Your task to perform on an android device: Go to Android settings Image 0: 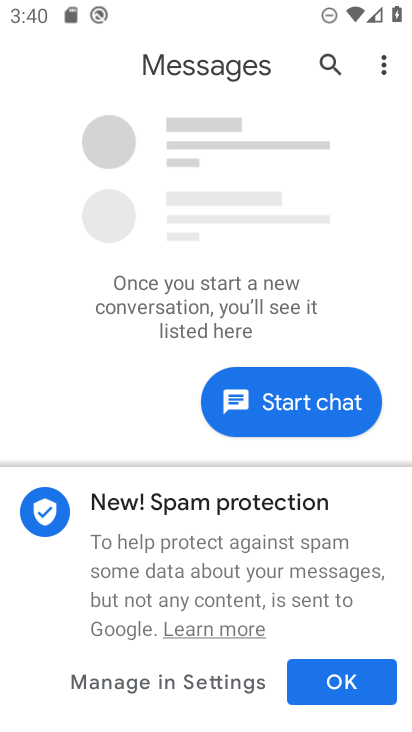
Step 0: press home button
Your task to perform on an android device: Go to Android settings Image 1: 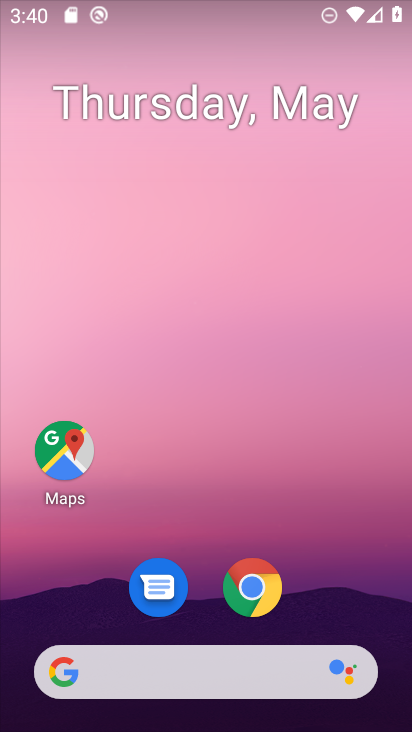
Step 1: drag from (360, 573) to (357, 211)
Your task to perform on an android device: Go to Android settings Image 2: 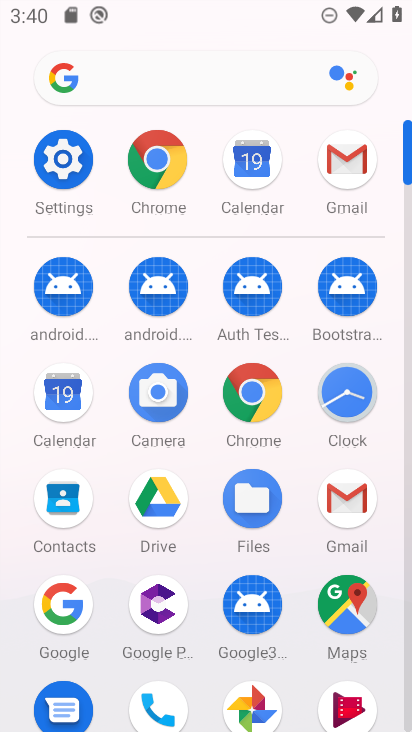
Step 2: click (73, 174)
Your task to perform on an android device: Go to Android settings Image 3: 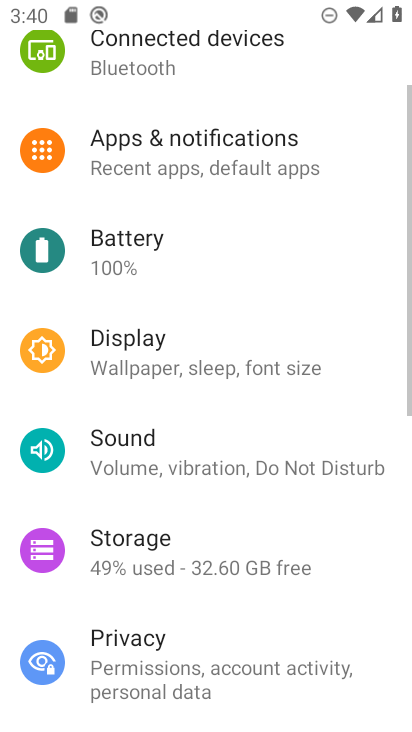
Step 3: drag from (372, 298) to (370, 354)
Your task to perform on an android device: Go to Android settings Image 4: 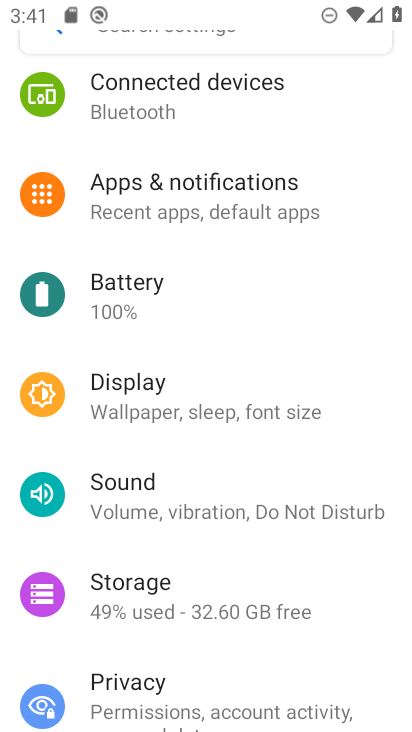
Step 4: drag from (362, 202) to (366, 333)
Your task to perform on an android device: Go to Android settings Image 5: 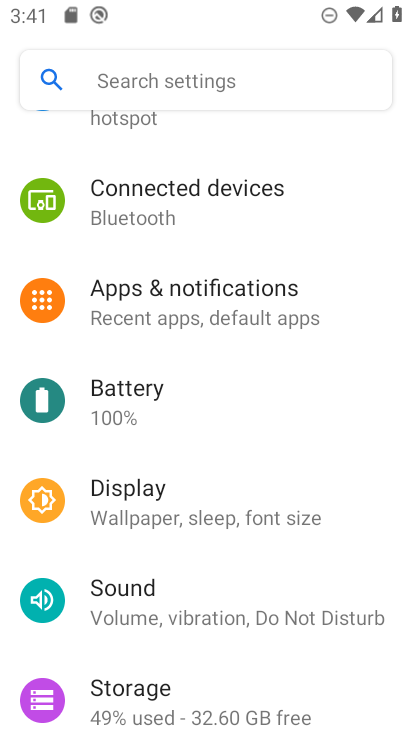
Step 5: drag from (347, 175) to (343, 318)
Your task to perform on an android device: Go to Android settings Image 6: 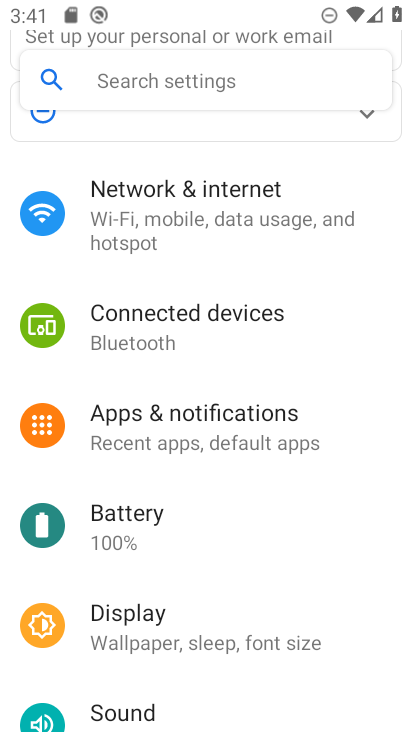
Step 6: drag from (351, 178) to (346, 339)
Your task to perform on an android device: Go to Android settings Image 7: 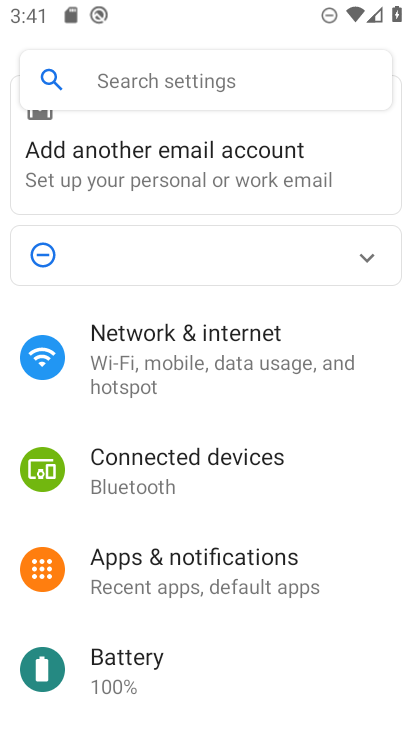
Step 7: drag from (358, 153) to (345, 377)
Your task to perform on an android device: Go to Android settings Image 8: 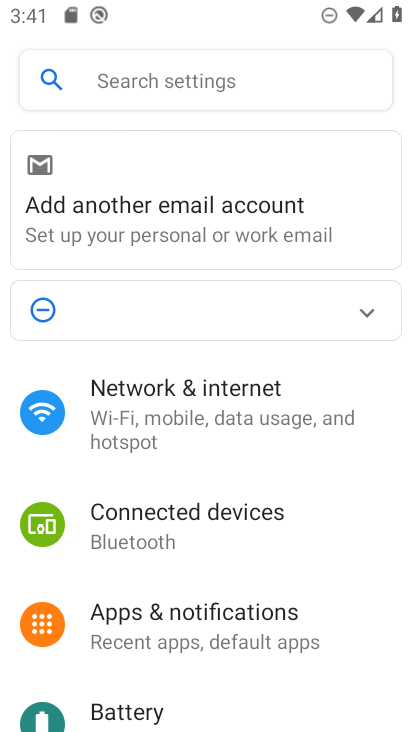
Step 8: drag from (338, 433) to (345, 297)
Your task to perform on an android device: Go to Android settings Image 9: 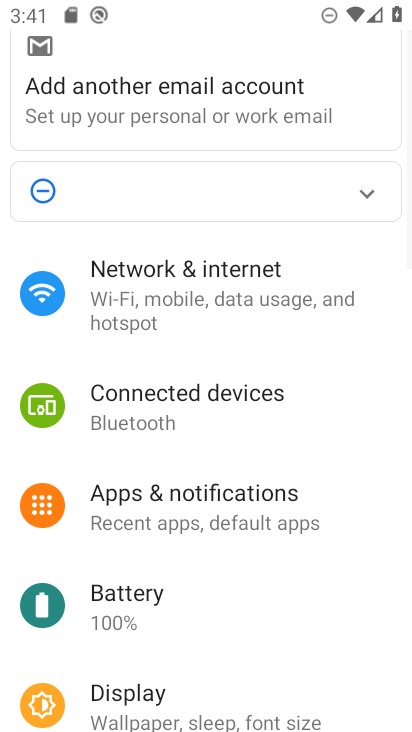
Step 9: drag from (340, 449) to (339, 311)
Your task to perform on an android device: Go to Android settings Image 10: 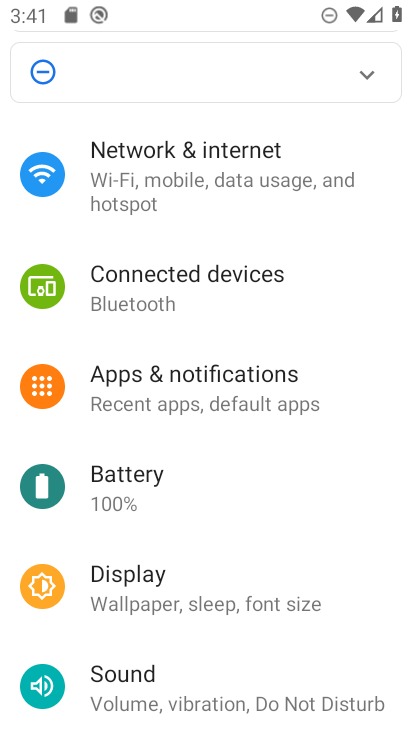
Step 10: drag from (339, 488) to (334, 381)
Your task to perform on an android device: Go to Android settings Image 11: 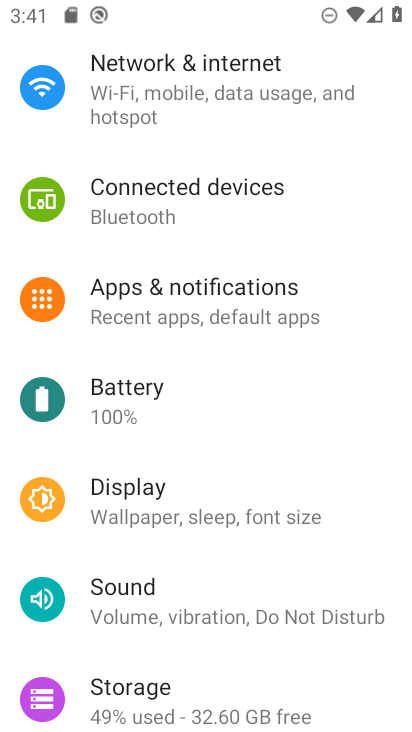
Step 11: drag from (319, 538) to (316, 413)
Your task to perform on an android device: Go to Android settings Image 12: 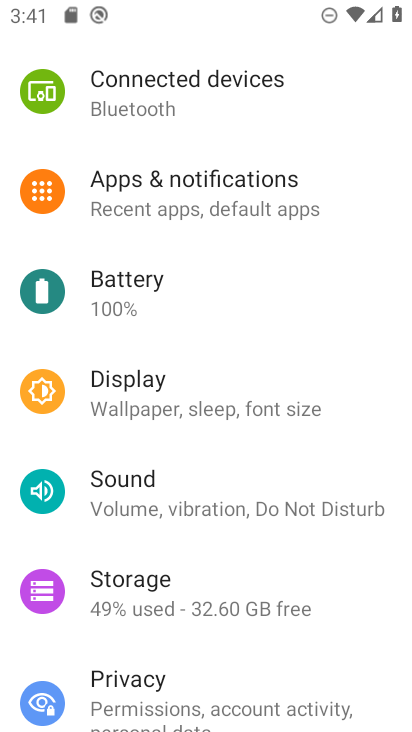
Step 12: drag from (320, 534) to (319, 446)
Your task to perform on an android device: Go to Android settings Image 13: 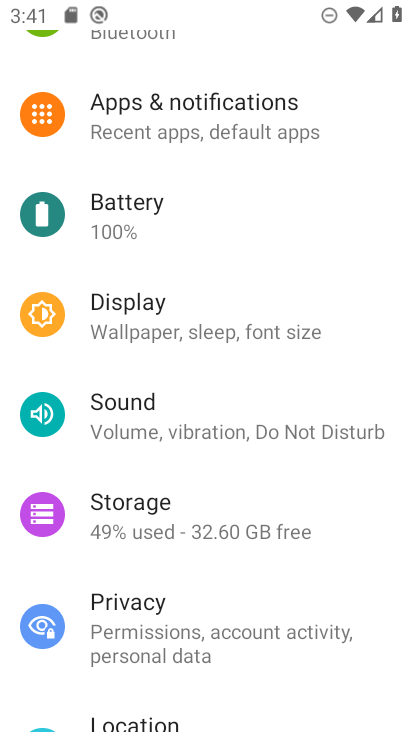
Step 13: drag from (312, 558) to (311, 452)
Your task to perform on an android device: Go to Android settings Image 14: 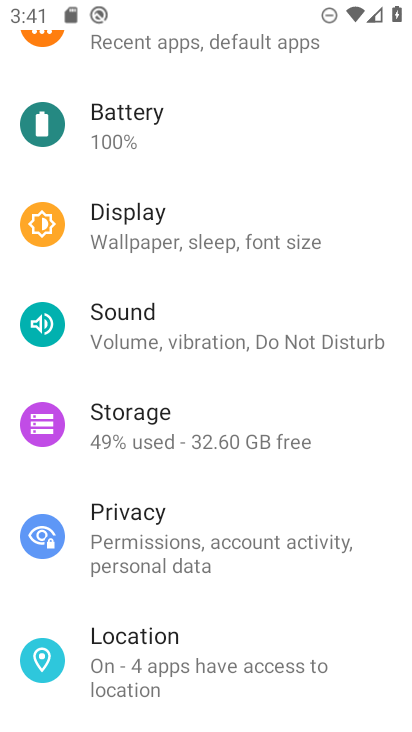
Step 14: drag from (312, 552) to (311, 465)
Your task to perform on an android device: Go to Android settings Image 15: 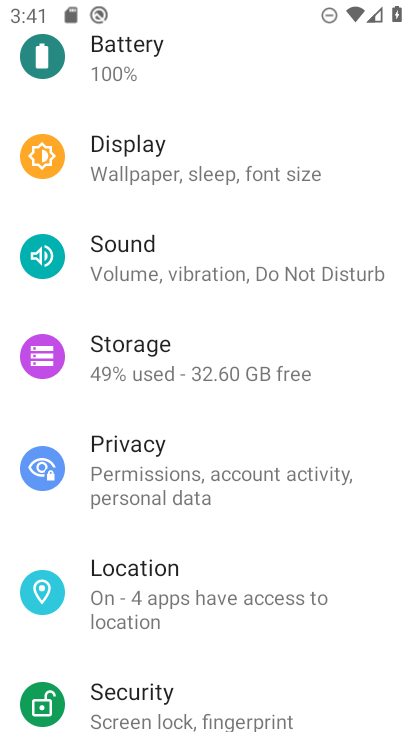
Step 15: drag from (334, 658) to (343, 559)
Your task to perform on an android device: Go to Android settings Image 16: 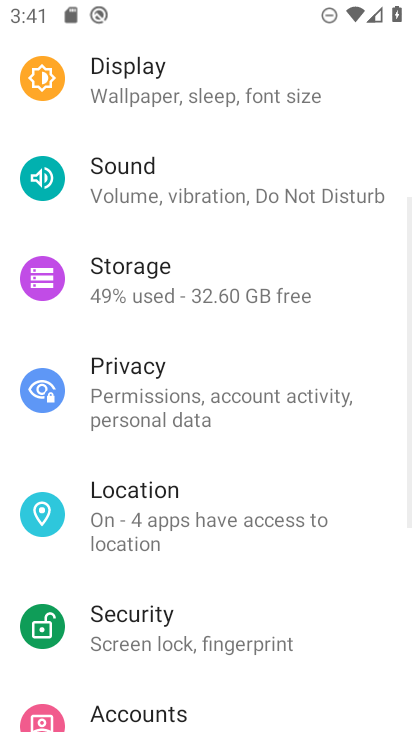
Step 16: drag from (339, 654) to (345, 556)
Your task to perform on an android device: Go to Android settings Image 17: 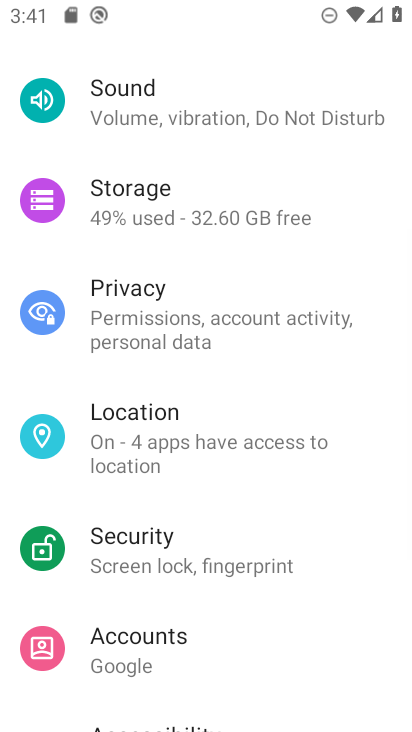
Step 17: drag from (317, 660) to (315, 554)
Your task to perform on an android device: Go to Android settings Image 18: 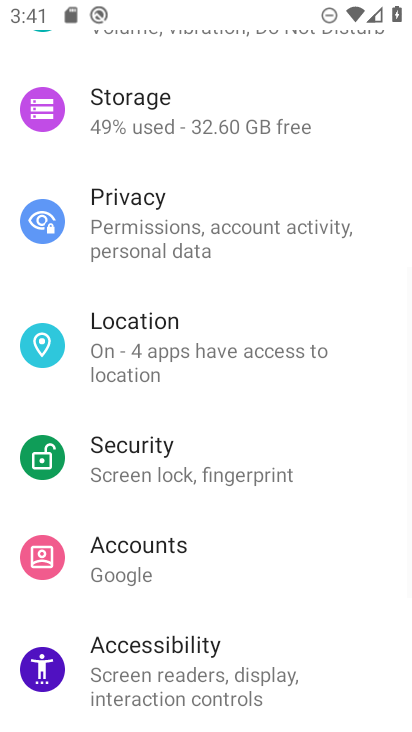
Step 18: drag from (320, 681) to (319, 581)
Your task to perform on an android device: Go to Android settings Image 19: 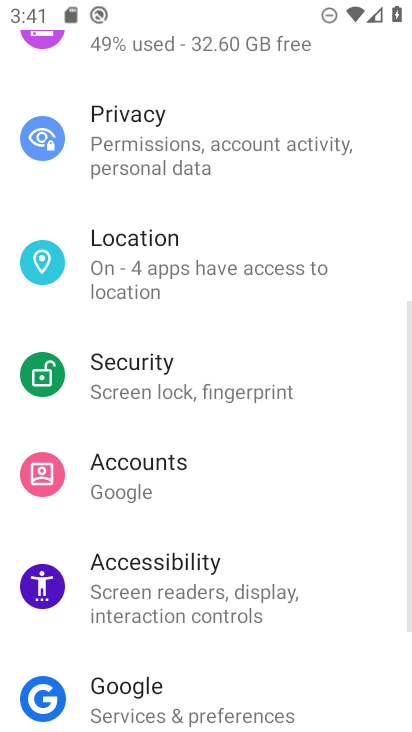
Step 19: drag from (317, 666) to (322, 543)
Your task to perform on an android device: Go to Android settings Image 20: 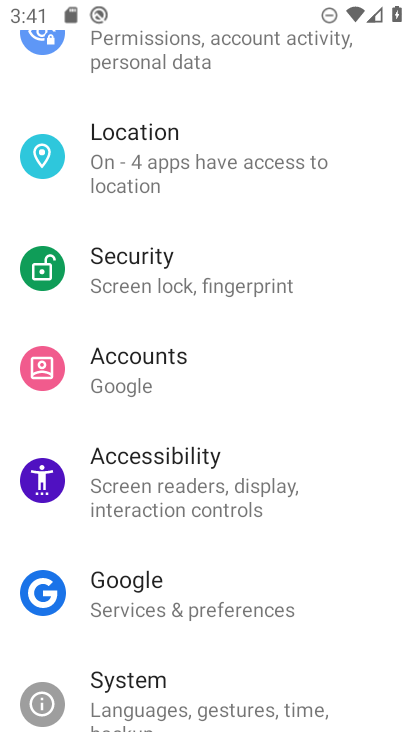
Step 20: drag from (315, 674) to (320, 542)
Your task to perform on an android device: Go to Android settings Image 21: 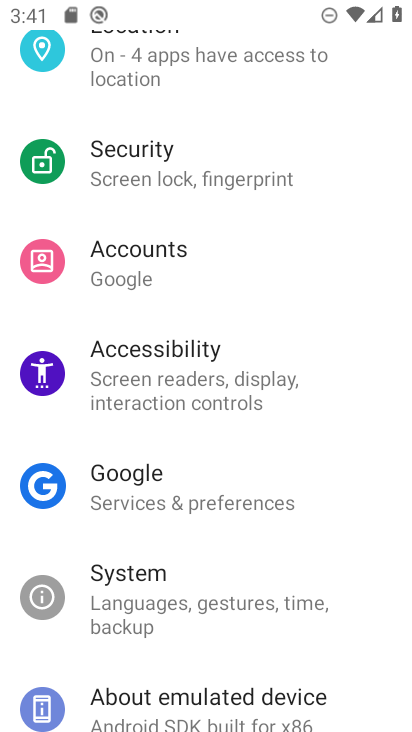
Step 21: drag from (341, 678) to (353, 554)
Your task to perform on an android device: Go to Android settings Image 22: 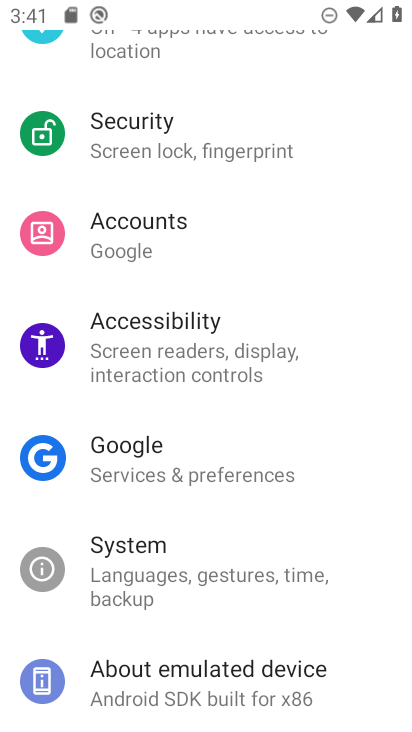
Step 22: click (296, 545)
Your task to perform on an android device: Go to Android settings Image 23: 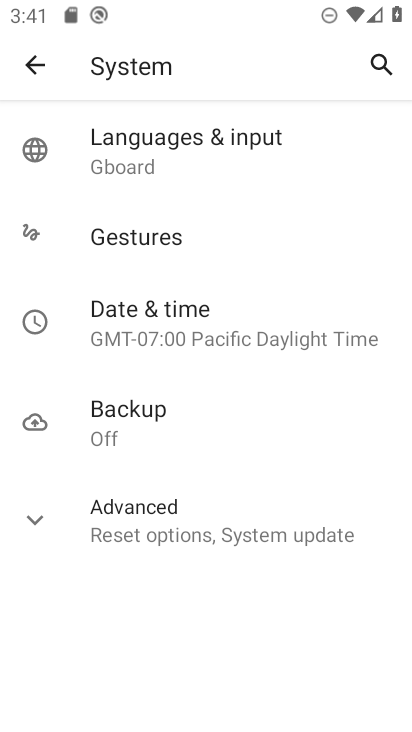
Step 23: click (296, 545)
Your task to perform on an android device: Go to Android settings Image 24: 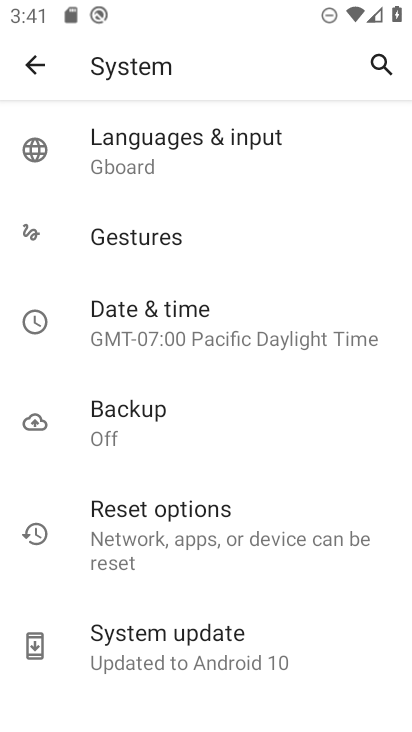
Step 24: task complete